Your task to perform on an android device: Is it going to rain this weekend? Image 0: 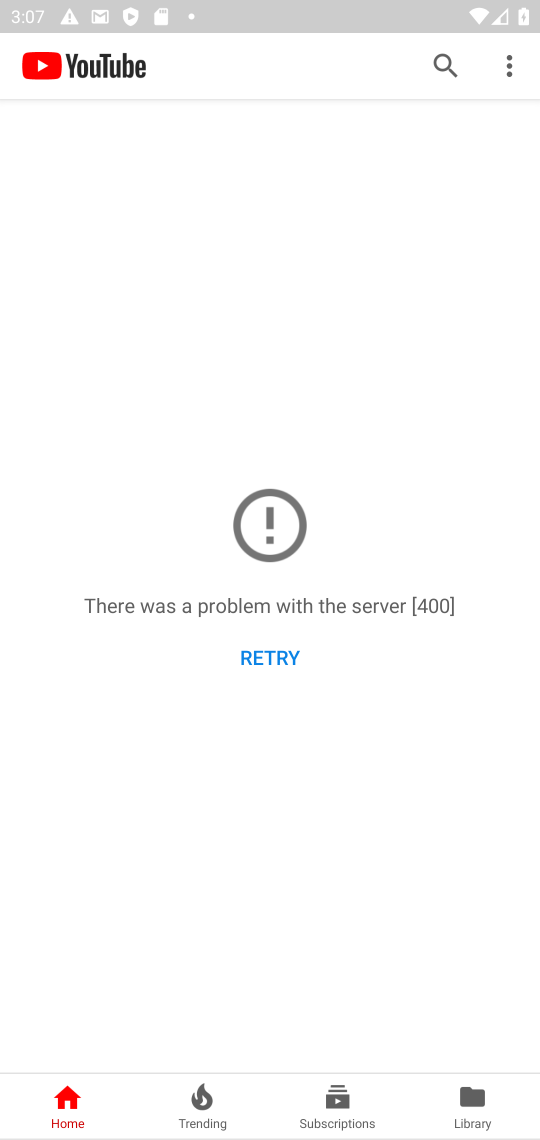
Step 0: press home button
Your task to perform on an android device: Is it going to rain this weekend? Image 1: 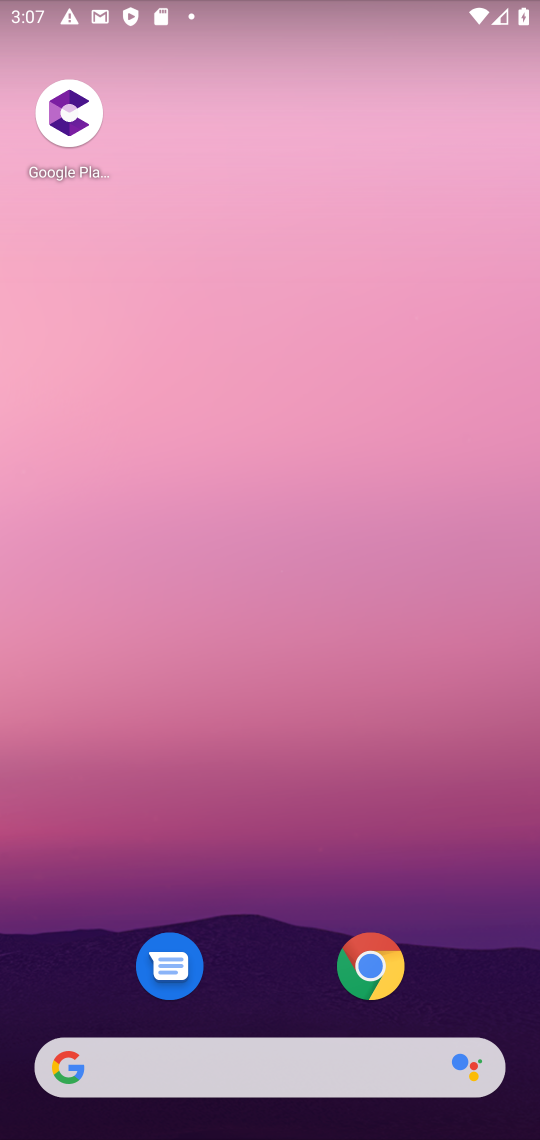
Step 1: click (114, 1069)
Your task to perform on an android device: Is it going to rain this weekend? Image 2: 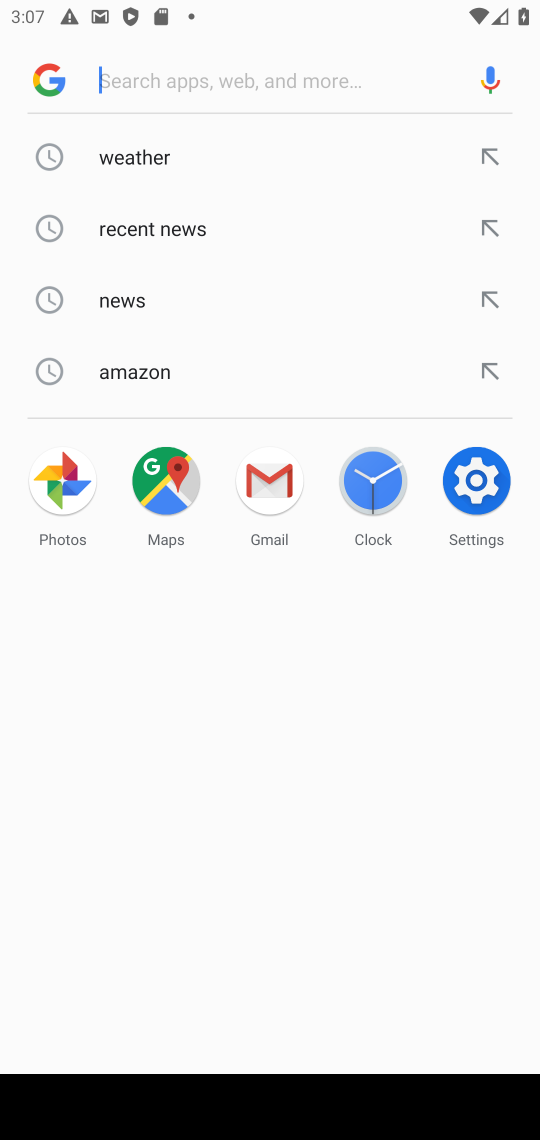
Step 2: type "Is it going to rain this weekend?"
Your task to perform on an android device: Is it going to rain this weekend? Image 3: 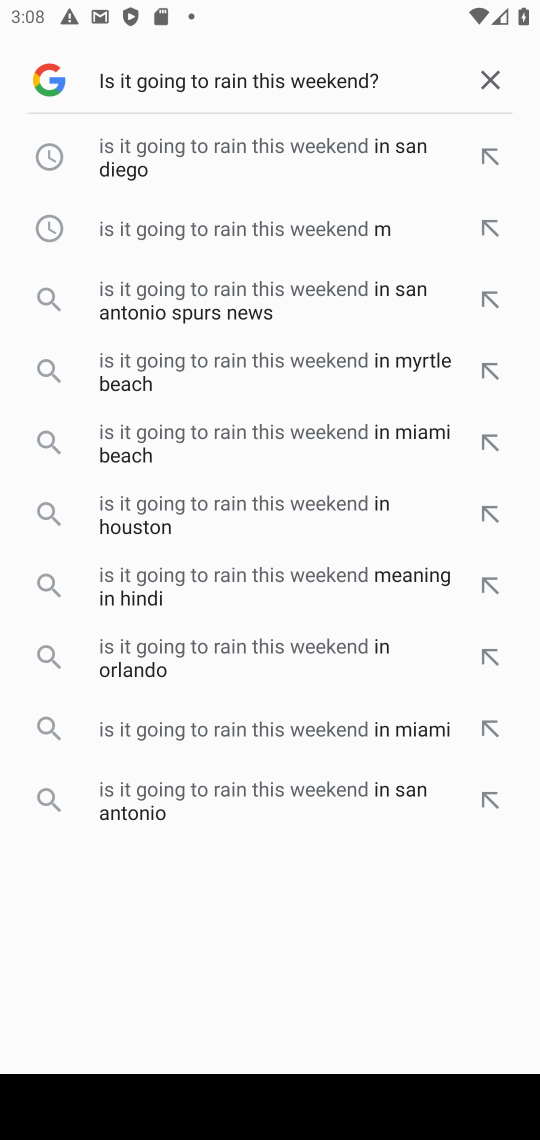
Step 3: task complete